Your task to perform on an android device: install app "Life360: Find Family & Friends" Image 0: 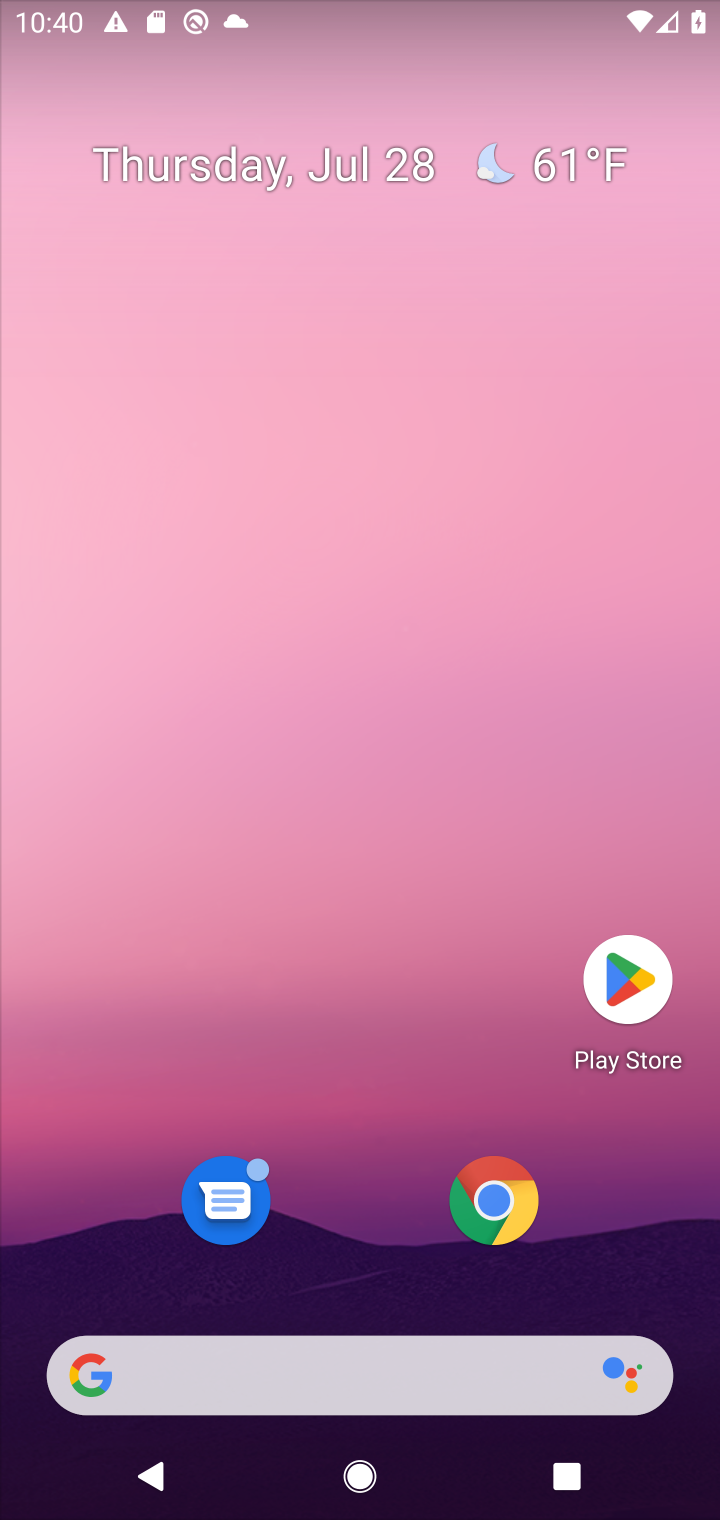
Step 0: press home button
Your task to perform on an android device: install app "Life360: Find Family & Friends" Image 1: 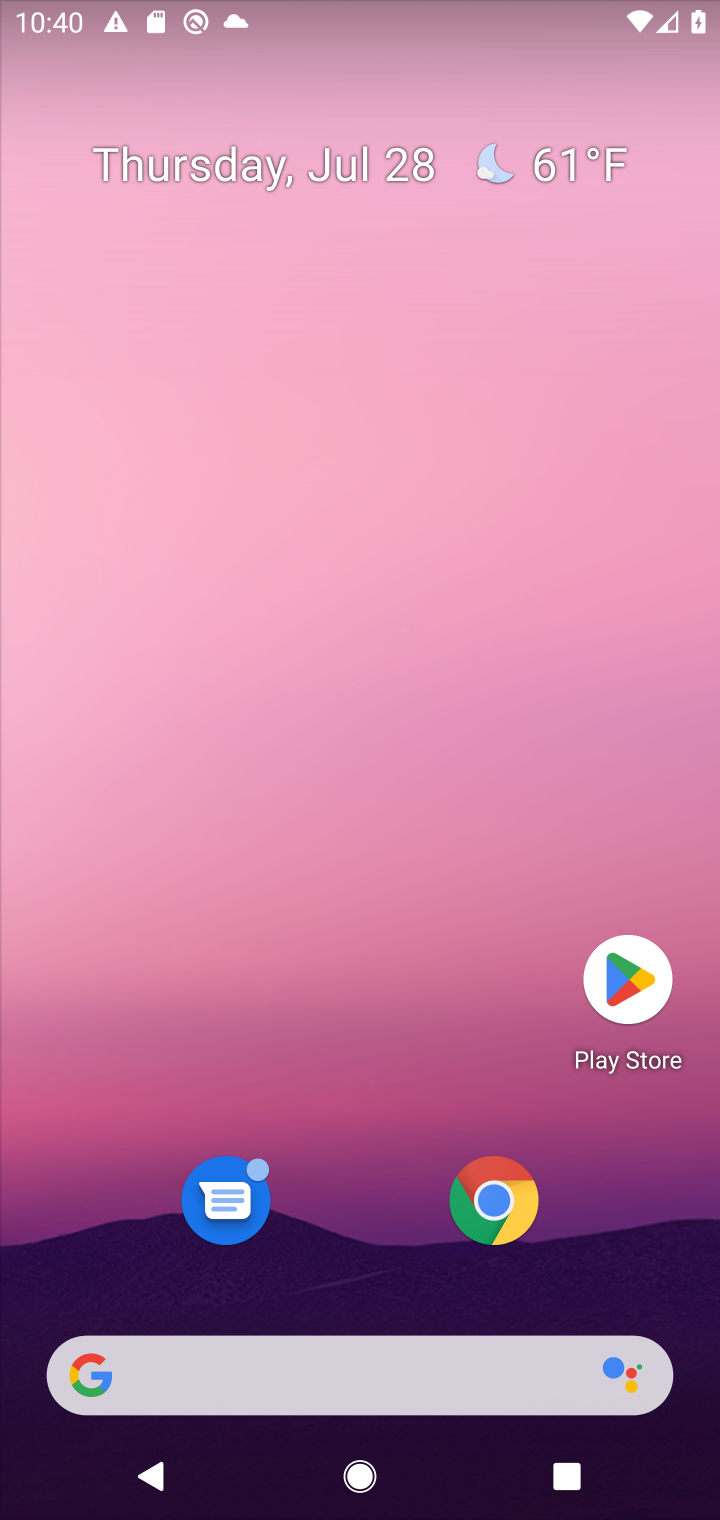
Step 1: click (629, 982)
Your task to perform on an android device: install app "Life360: Find Family & Friends" Image 2: 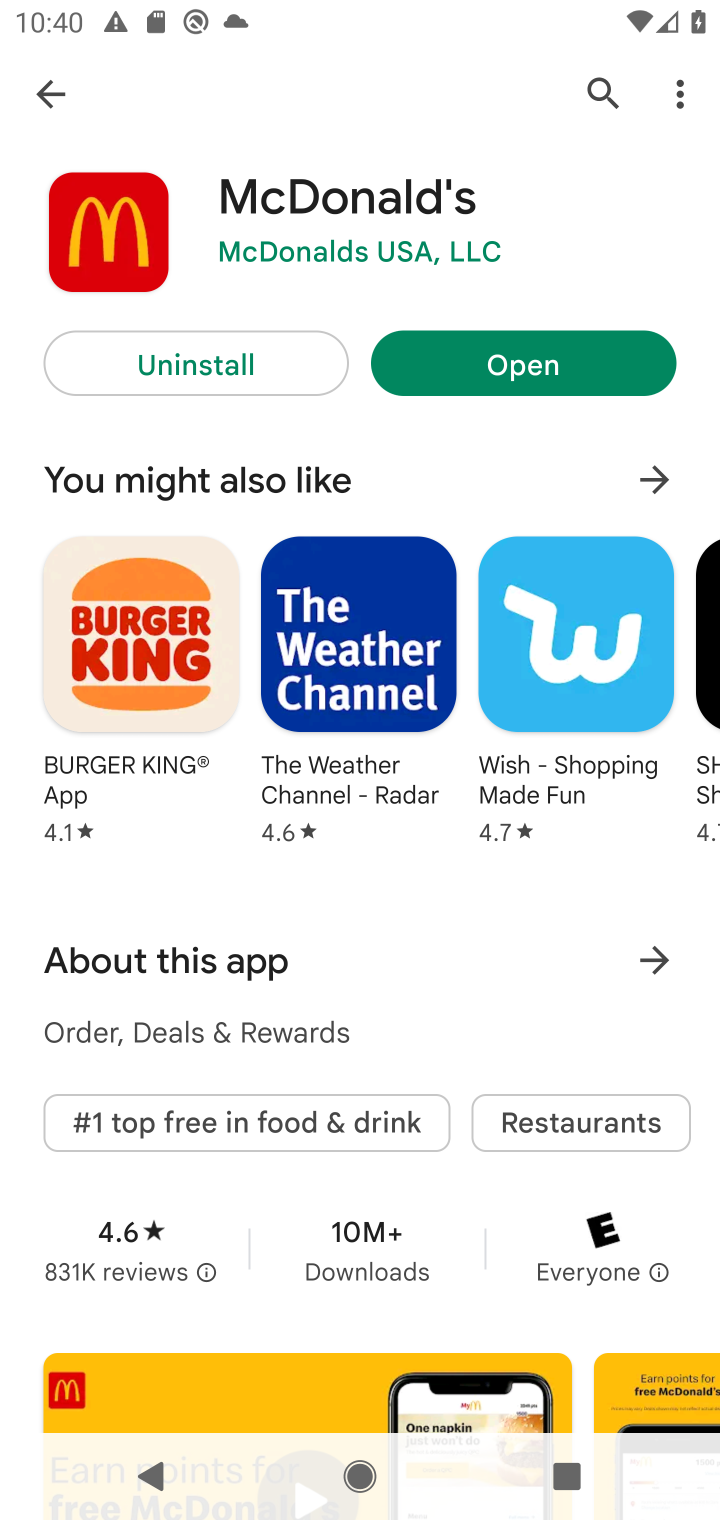
Step 2: click (590, 88)
Your task to perform on an android device: install app "Life360: Find Family & Friends" Image 3: 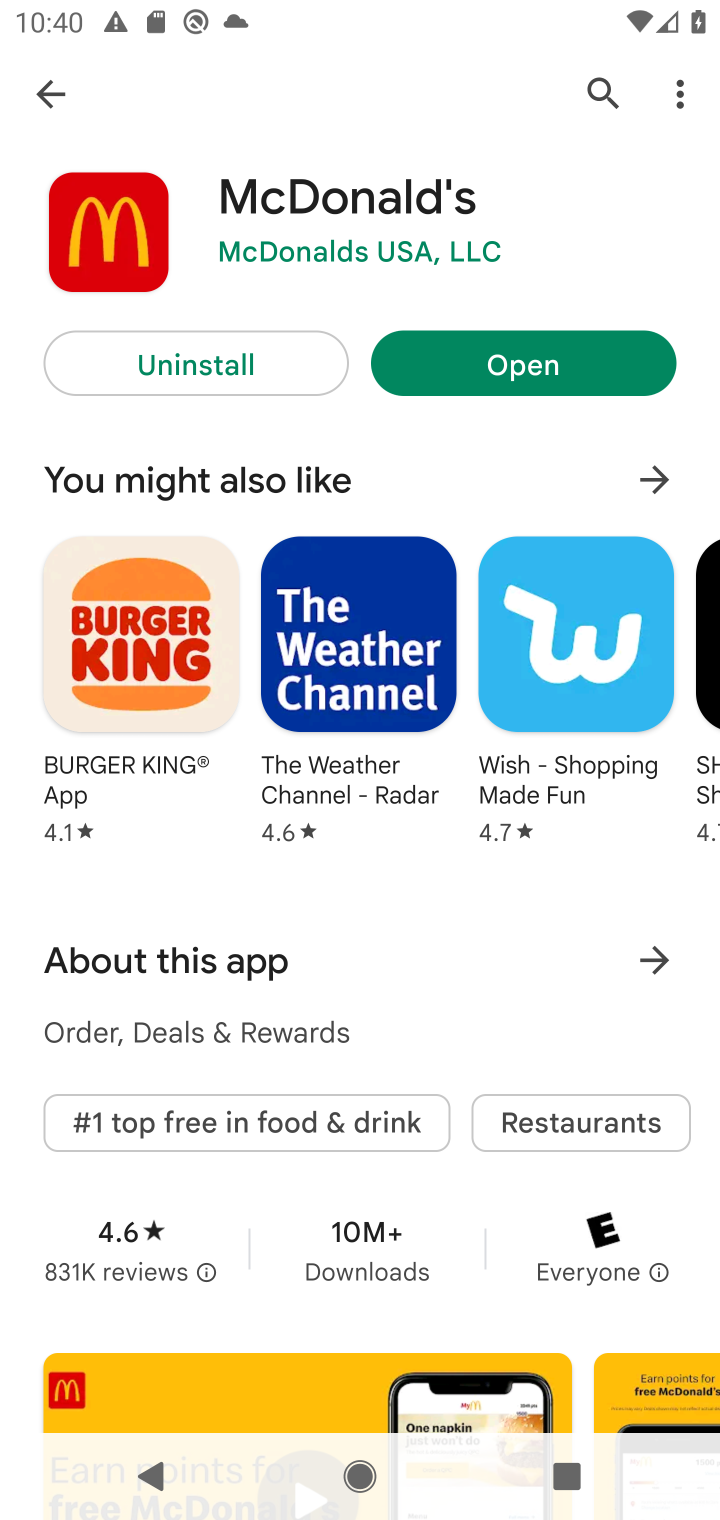
Step 3: click (599, 88)
Your task to perform on an android device: install app "Life360: Find Family & Friends" Image 4: 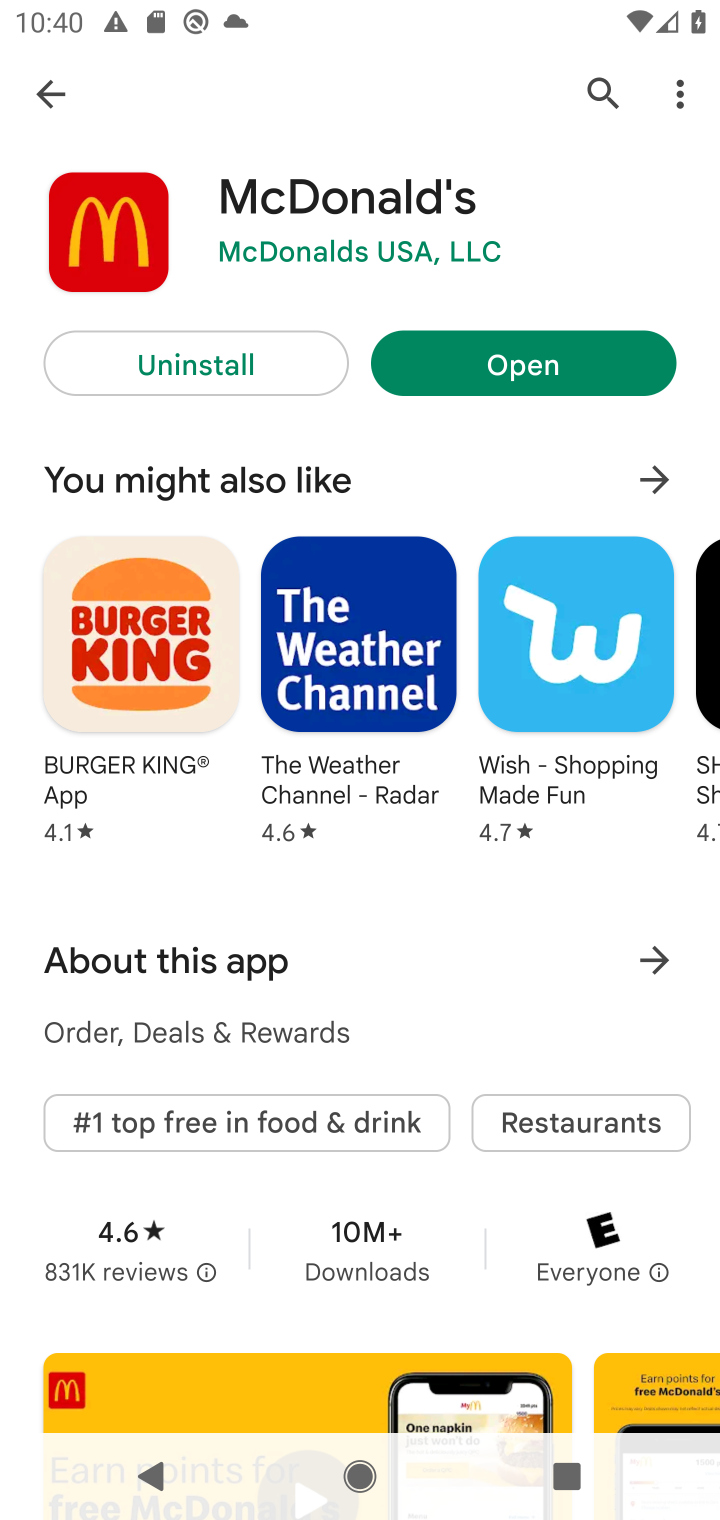
Step 4: click (592, 88)
Your task to perform on an android device: install app "Life360: Find Family & Friends" Image 5: 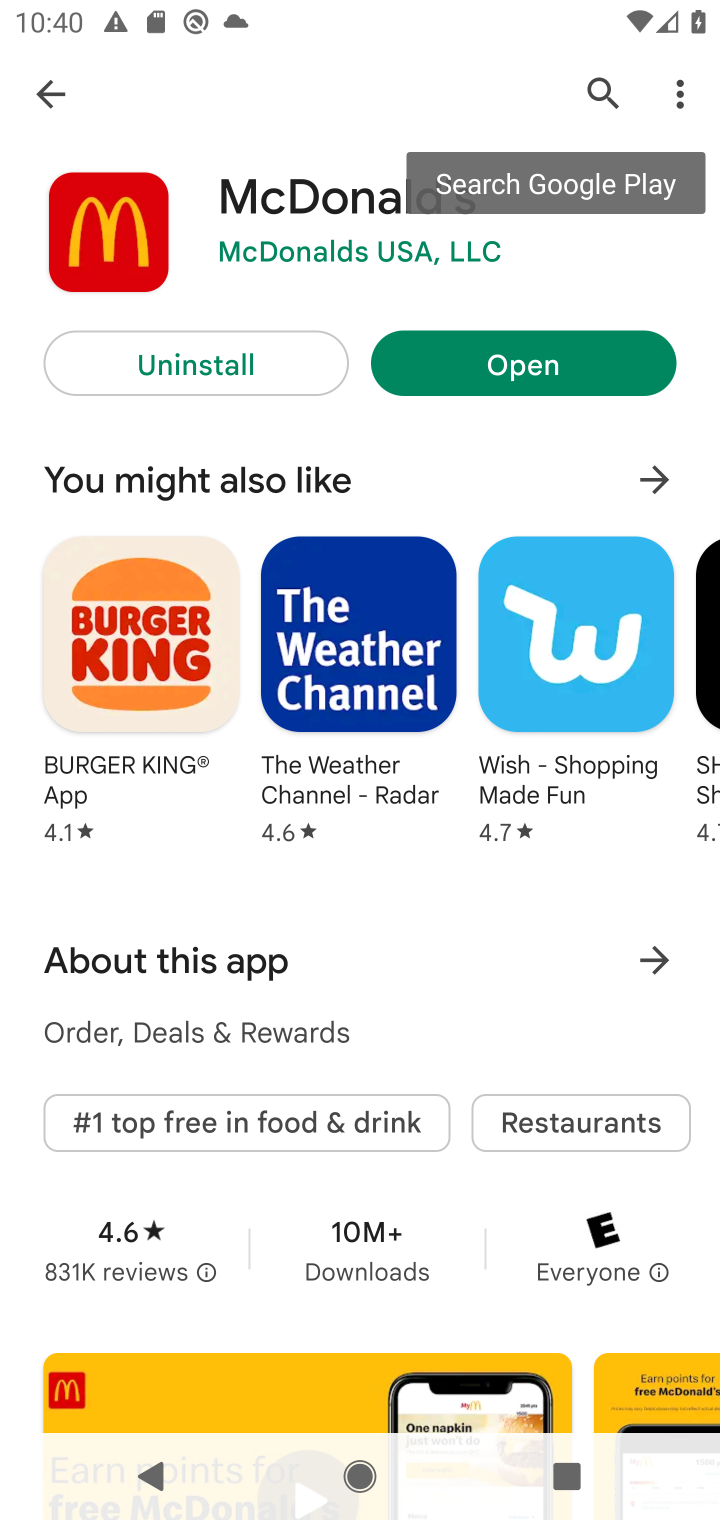
Step 5: click (592, 88)
Your task to perform on an android device: install app "Life360: Find Family & Friends" Image 6: 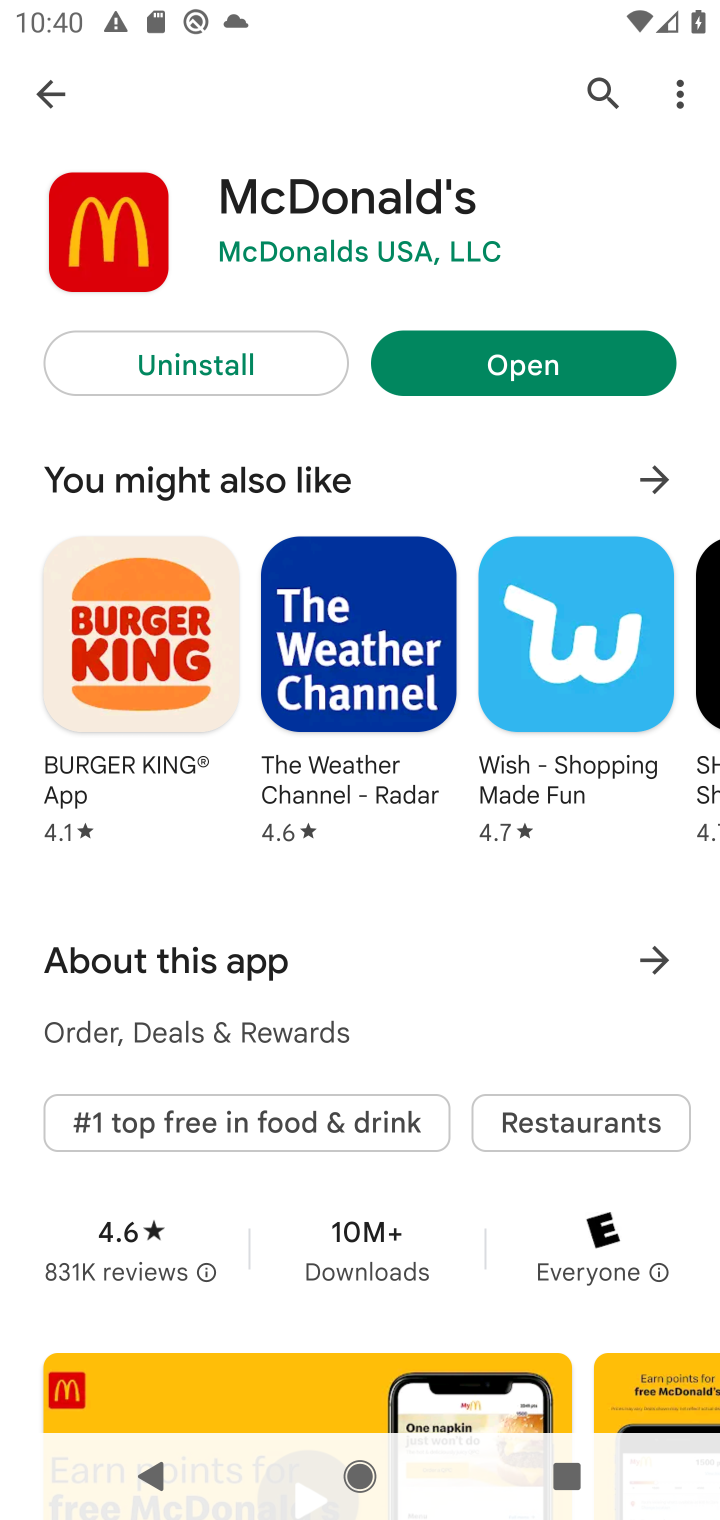
Step 6: click (53, 87)
Your task to perform on an android device: install app "Life360: Find Family & Friends" Image 7: 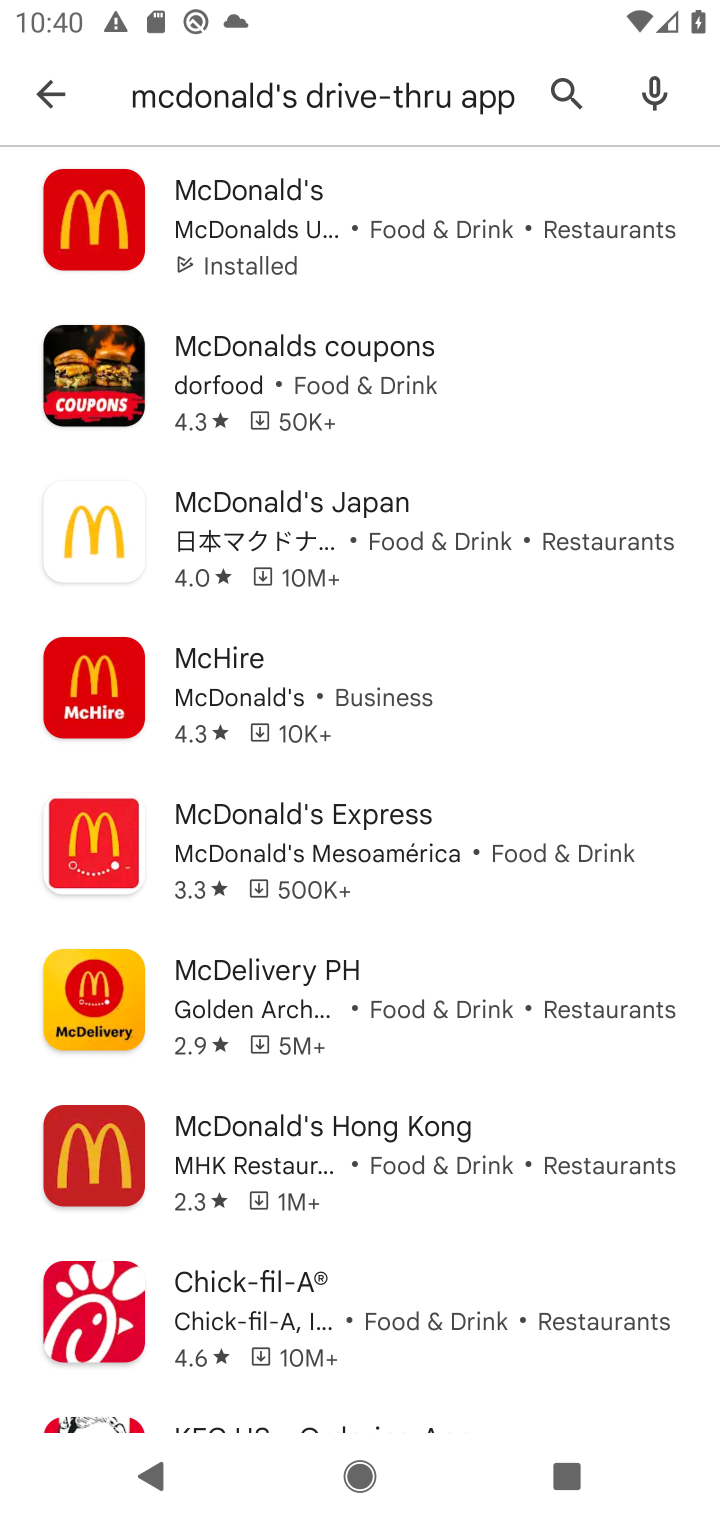
Step 7: click (592, 77)
Your task to perform on an android device: install app "Life360: Find Family & Friends" Image 8: 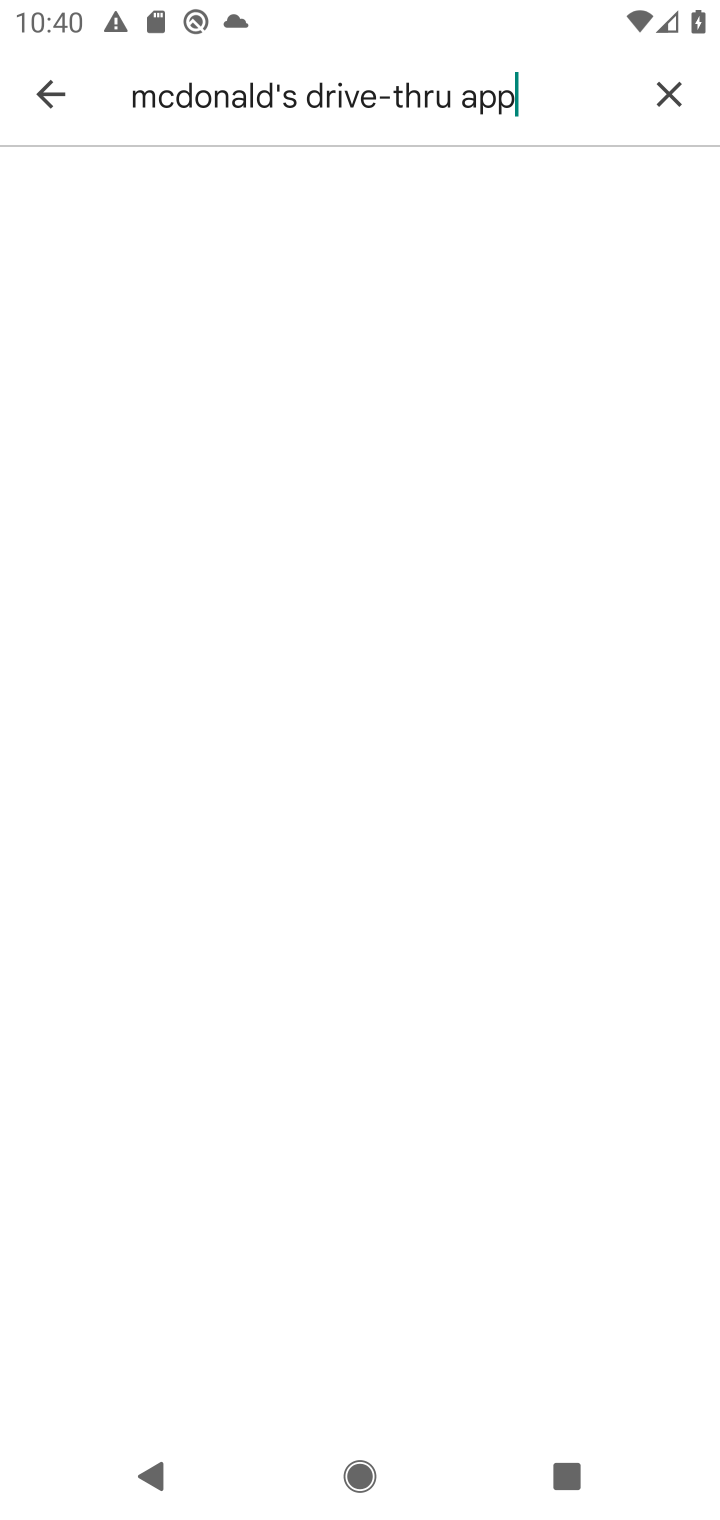
Step 8: click (496, 95)
Your task to perform on an android device: install app "Life360: Find Family & Friends" Image 9: 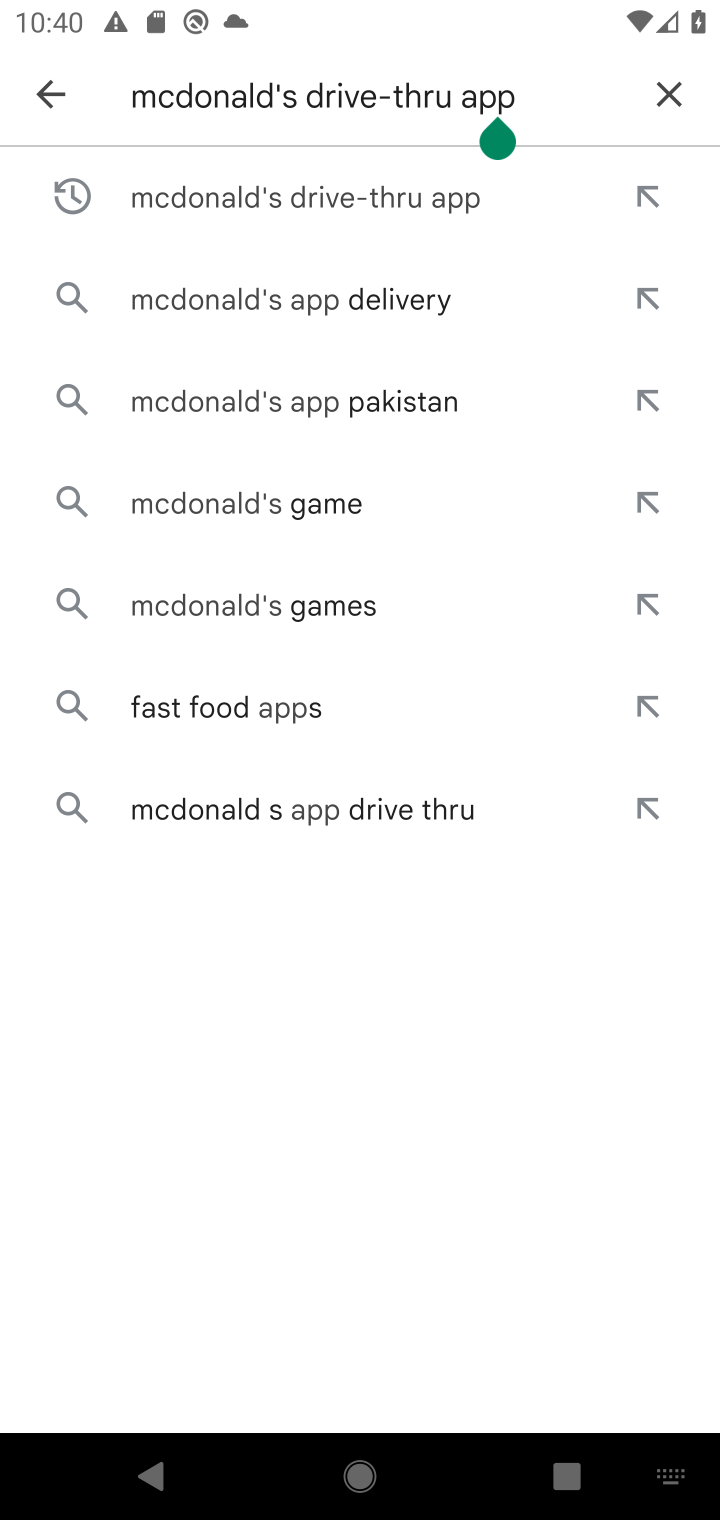
Step 9: click (662, 98)
Your task to perform on an android device: install app "Life360: Find Family & Friends" Image 10: 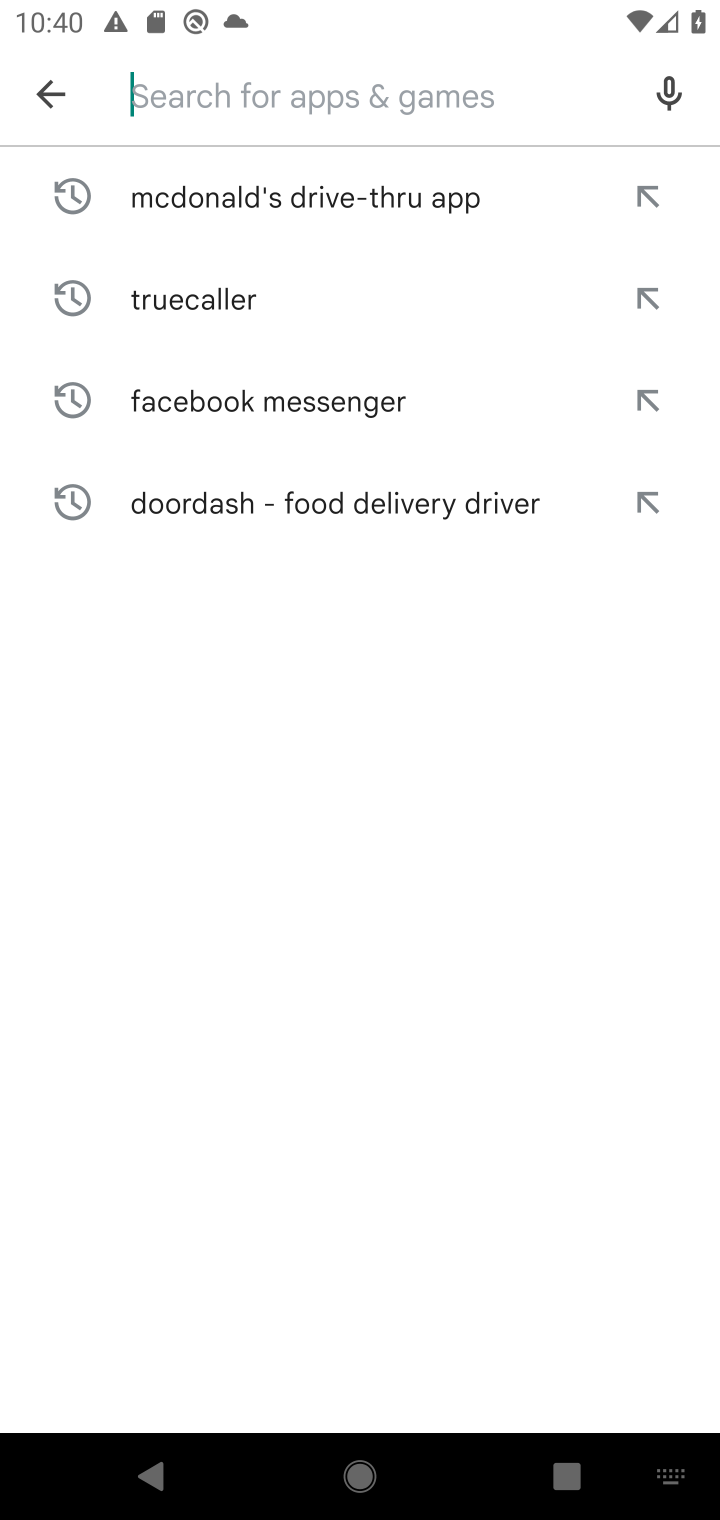
Step 10: type "Life360: Find Family & Friends"
Your task to perform on an android device: install app "Life360: Find Family & Friends" Image 11: 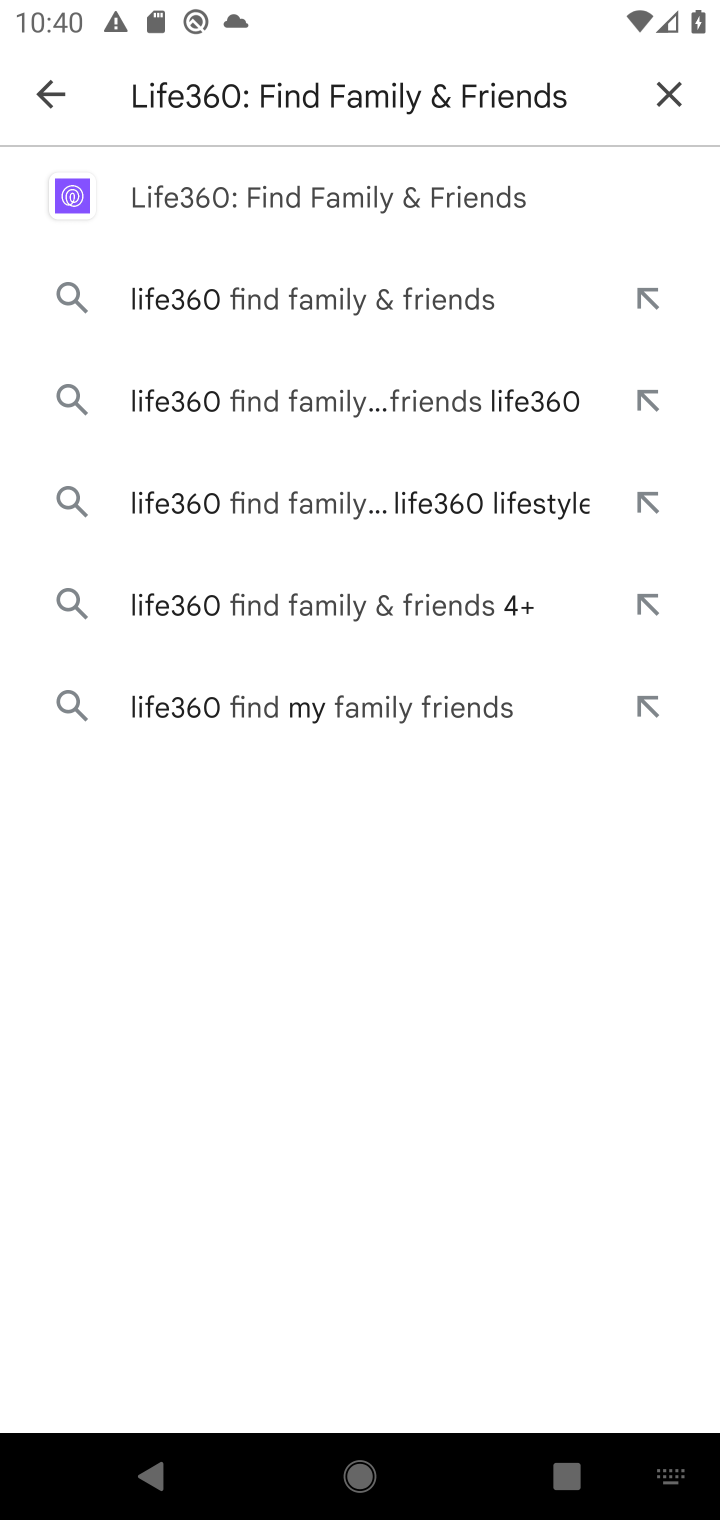
Step 11: click (282, 193)
Your task to perform on an android device: install app "Life360: Find Family & Friends" Image 12: 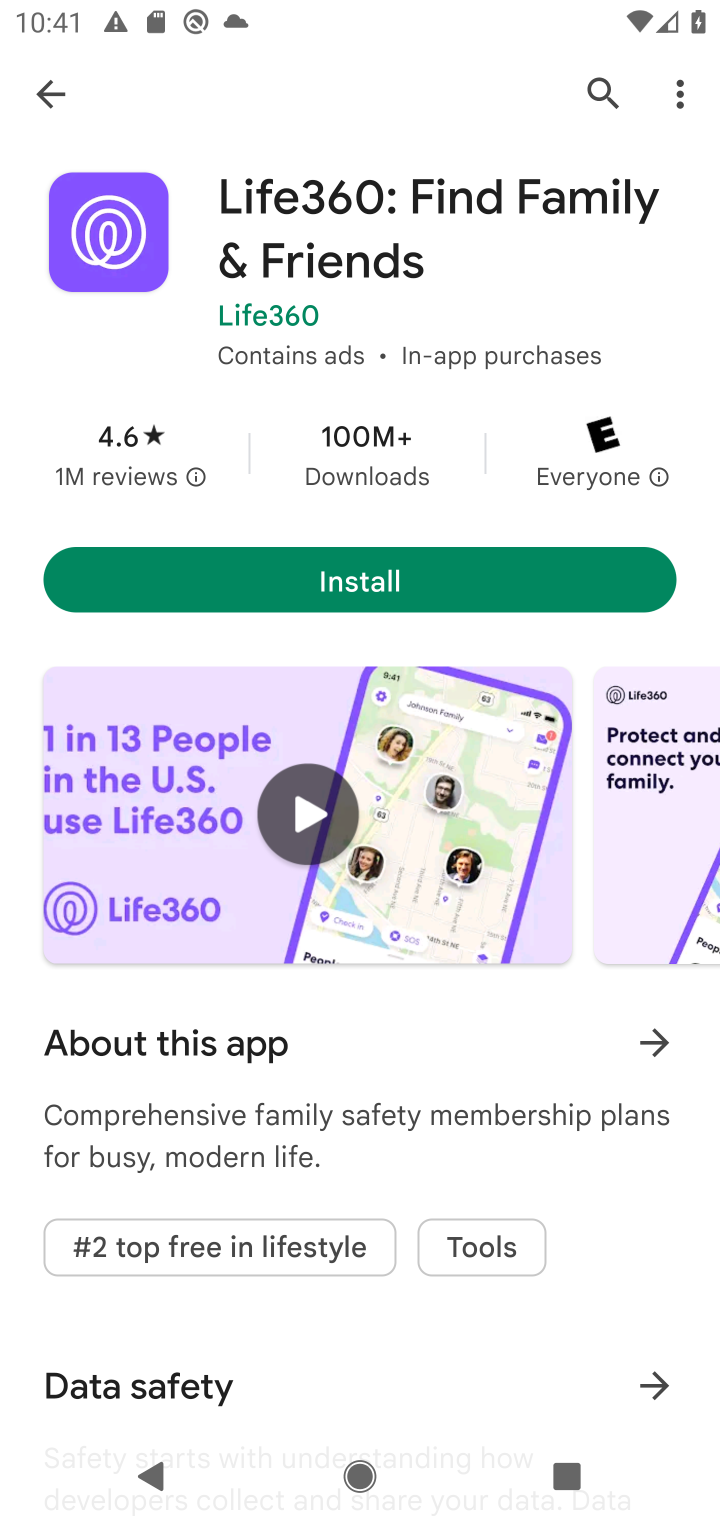
Step 12: click (353, 587)
Your task to perform on an android device: install app "Life360: Find Family & Friends" Image 13: 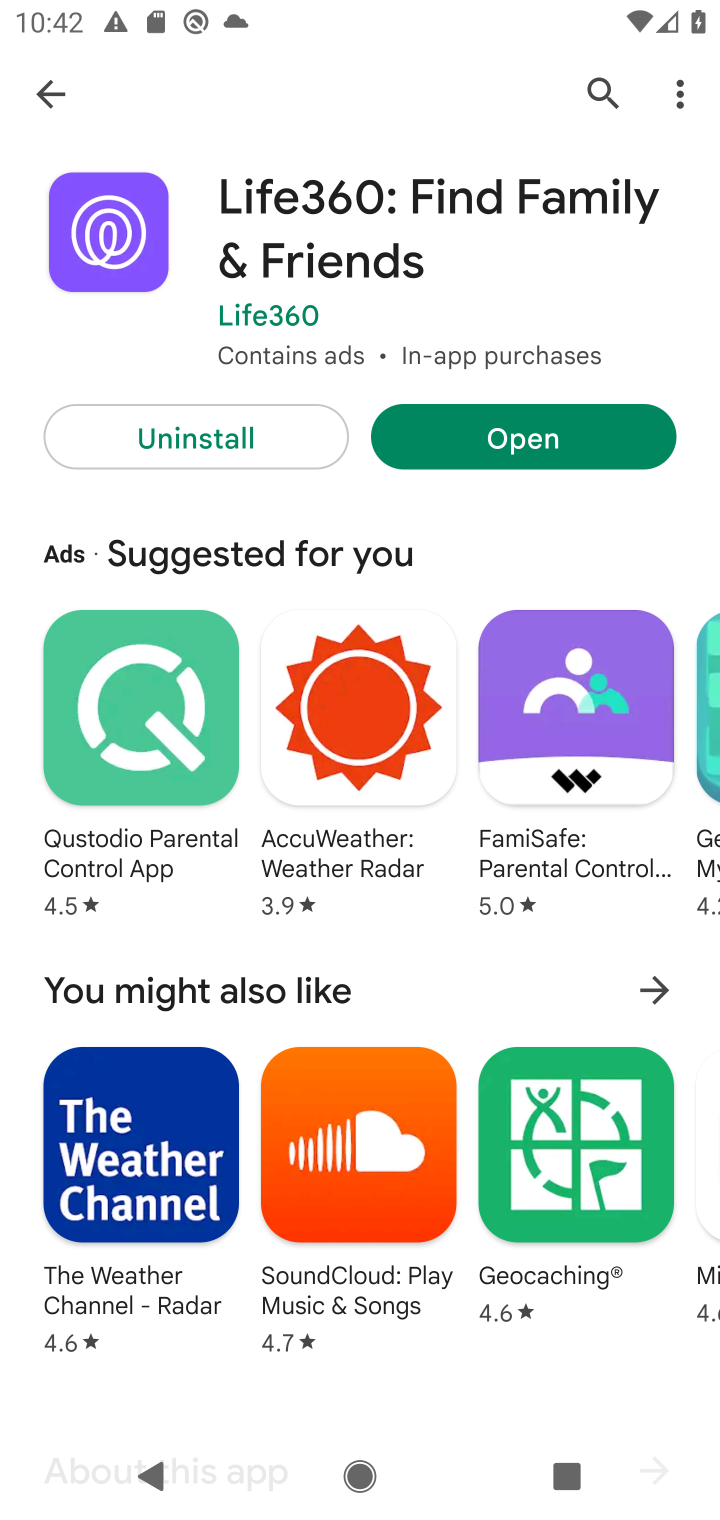
Step 13: task complete